Your task to perform on an android device: Check the news Image 0: 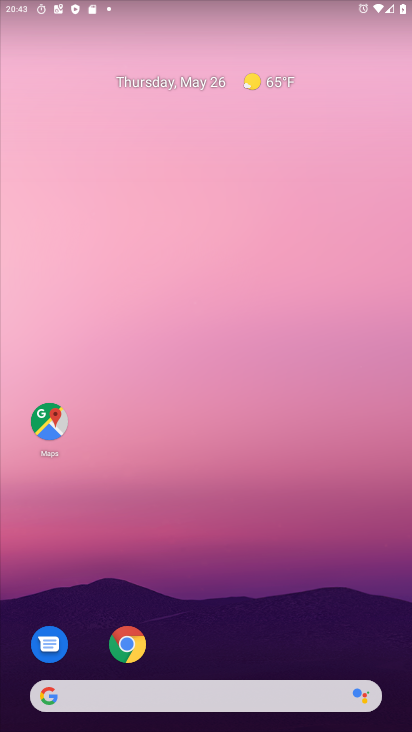
Step 0: drag from (226, 420) to (236, 106)
Your task to perform on an android device: Check the news Image 1: 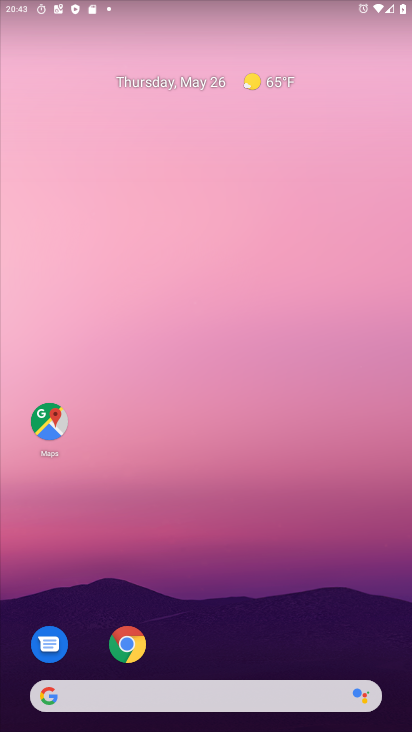
Step 1: drag from (188, 651) to (405, 623)
Your task to perform on an android device: Check the news Image 2: 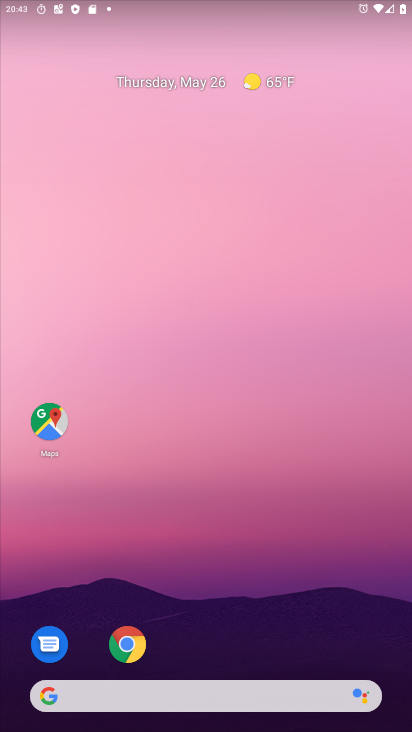
Step 2: drag from (232, 628) to (293, 59)
Your task to perform on an android device: Check the news Image 3: 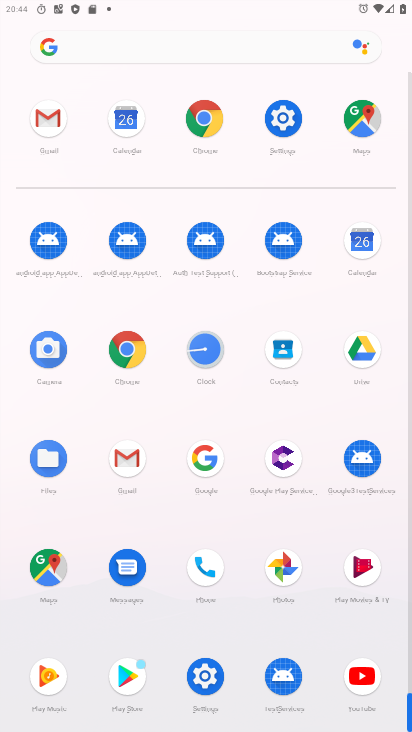
Step 3: click (50, 566)
Your task to perform on an android device: Check the news Image 4: 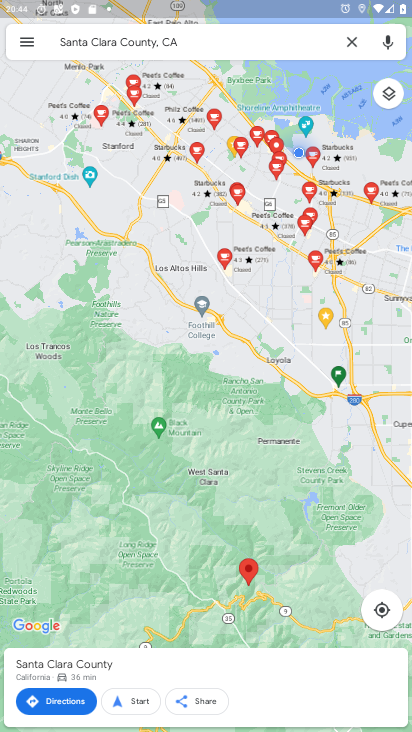
Step 4: drag from (221, 247) to (332, 711)
Your task to perform on an android device: Check the news Image 5: 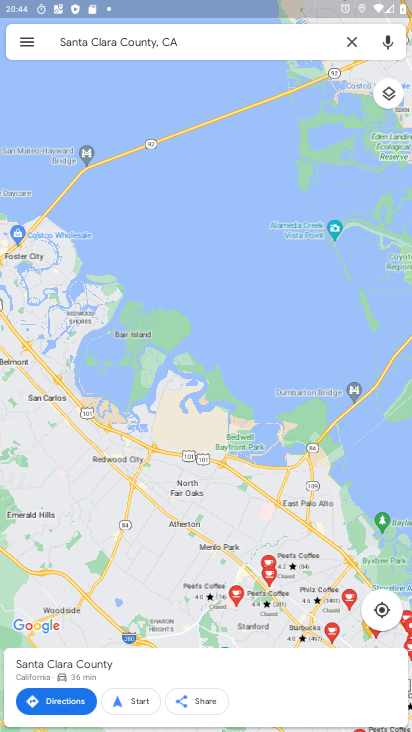
Step 5: drag from (266, 571) to (277, 416)
Your task to perform on an android device: Check the news Image 6: 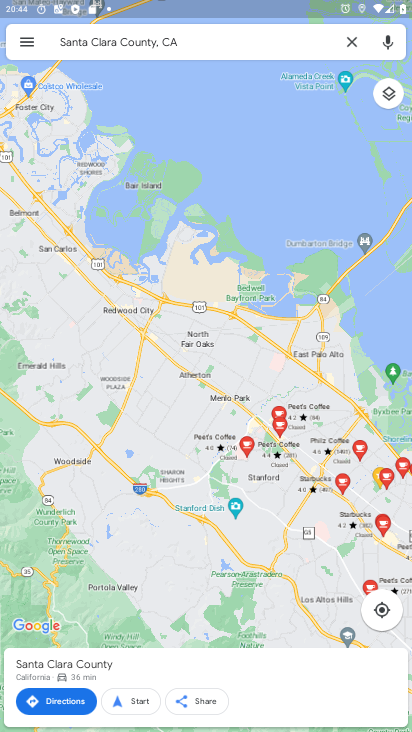
Step 6: press home button
Your task to perform on an android device: Check the news Image 7: 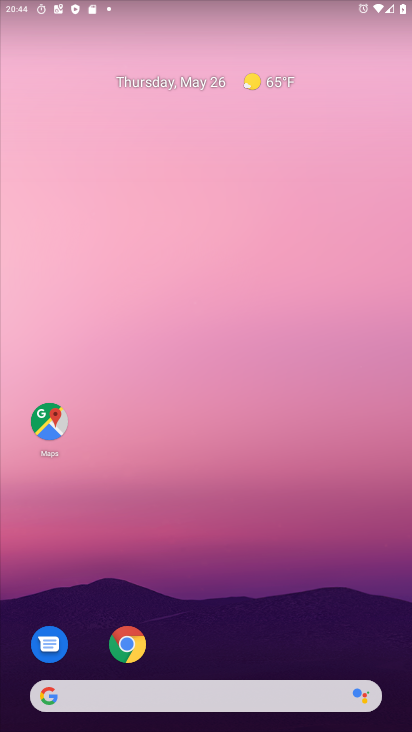
Step 7: drag from (190, 621) to (199, 143)
Your task to perform on an android device: Check the news Image 8: 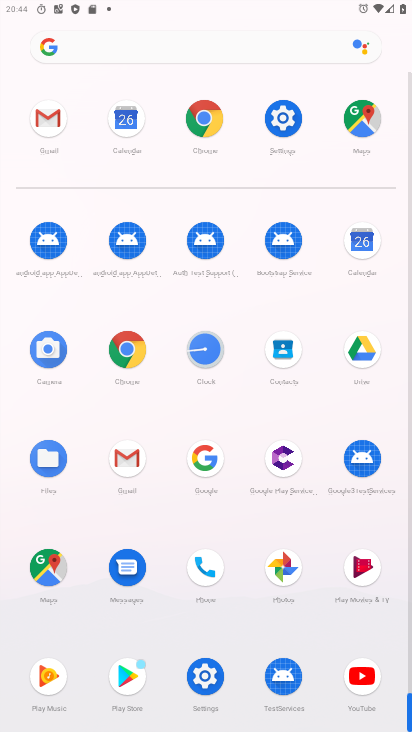
Step 8: click (104, 44)
Your task to perform on an android device: Check the news Image 9: 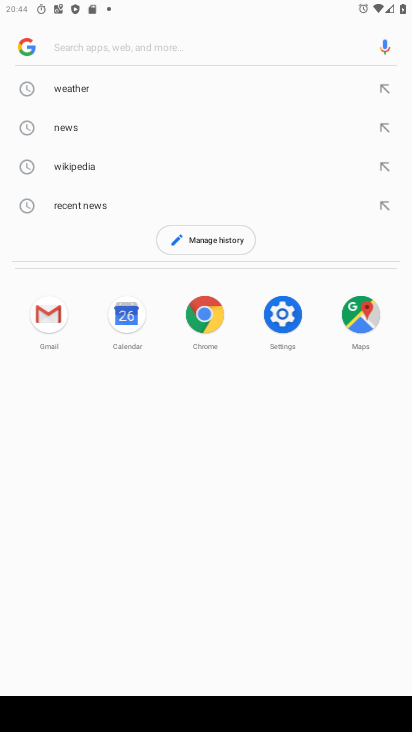
Step 9: click (111, 121)
Your task to perform on an android device: Check the news Image 10: 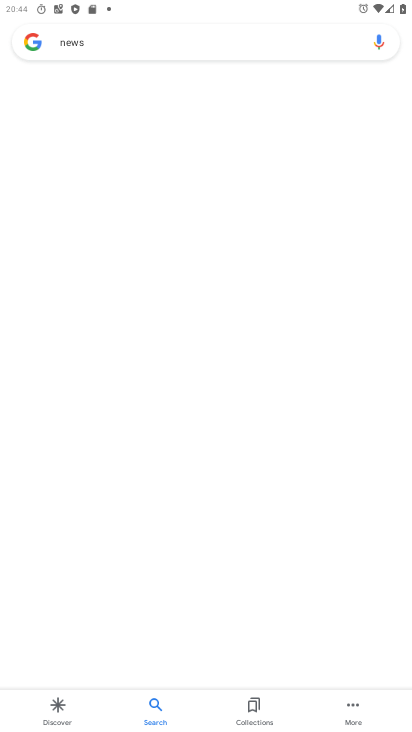
Step 10: task complete